Your task to perform on an android device: Go to Yahoo.com Image 0: 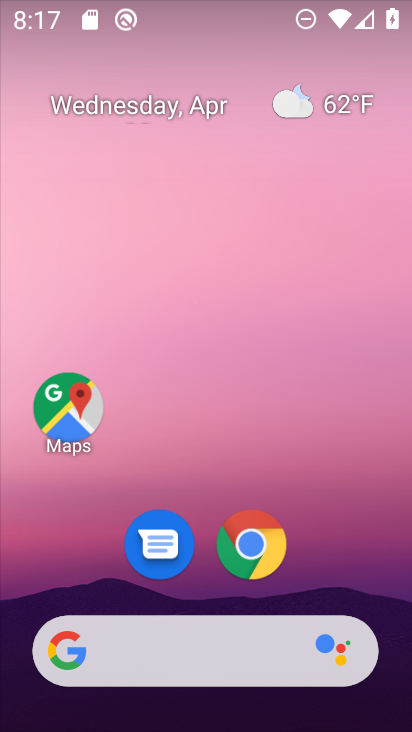
Step 0: click (239, 554)
Your task to perform on an android device: Go to Yahoo.com Image 1: 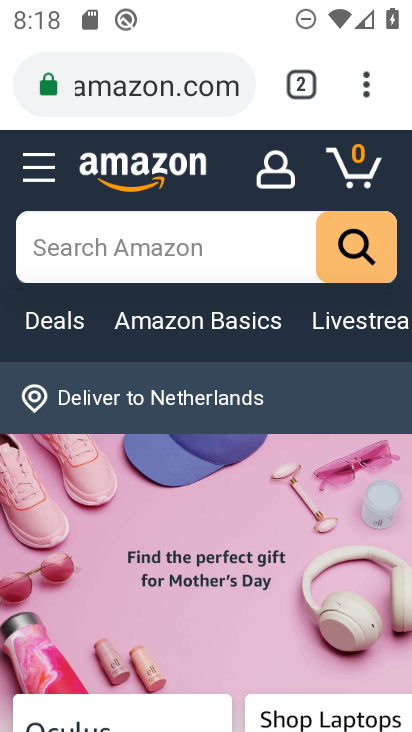
Step 1: click (298, 83)
Your task to perform on an android device: Go to Yahoo.com Image 2: 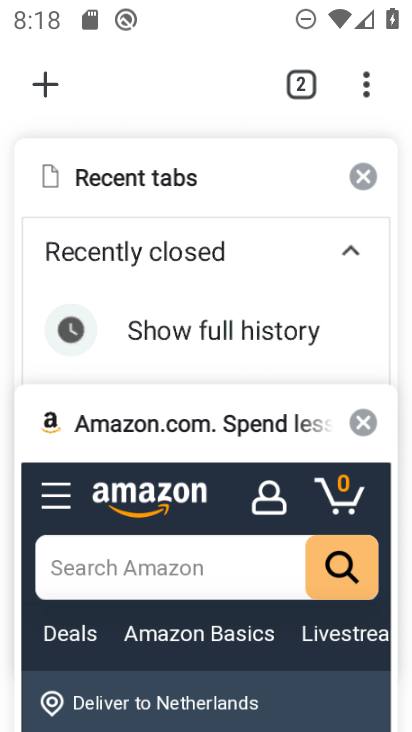
Step 2: click (45, 77)
Your task to perform on an android device: Go to Yahoo.com Image 3: 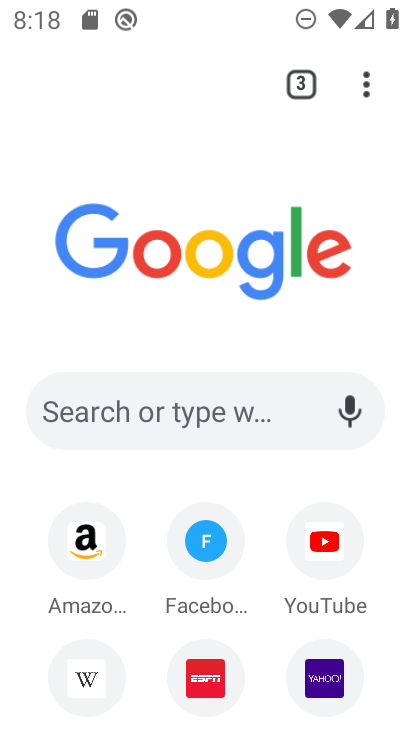
Step 3: click (326, 664)
Your task to perform on an android device: Go to Yahoo.com Image 4: 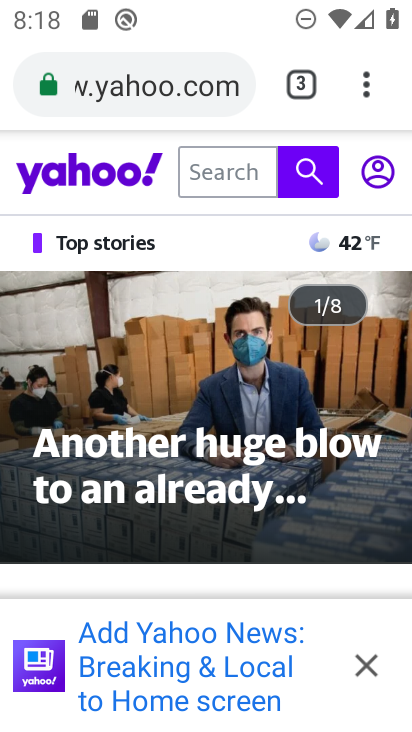
Step 4: task complete